Your task to perform on an android device: turn on wifi Image 0: 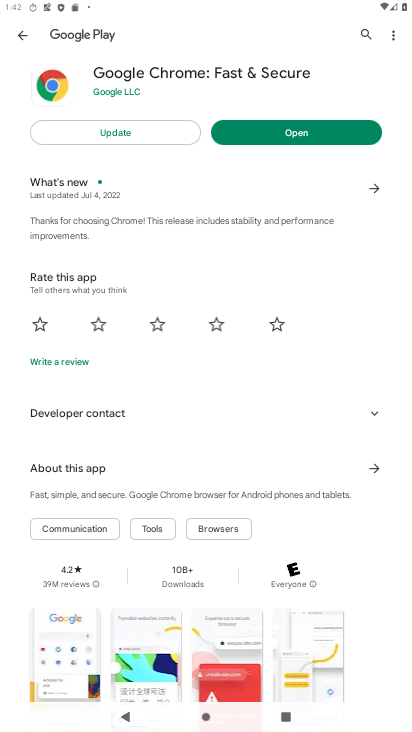
Step 0: press home button
Your task to perform on an android device: turn on wifi Image 1: 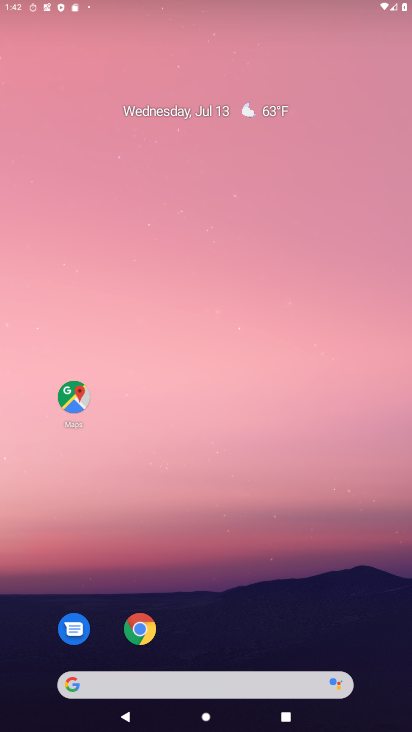
Step 1: drag from (233, 532) to (237, 224)
Your task to perform on an android device: turn on wifi Image 2: 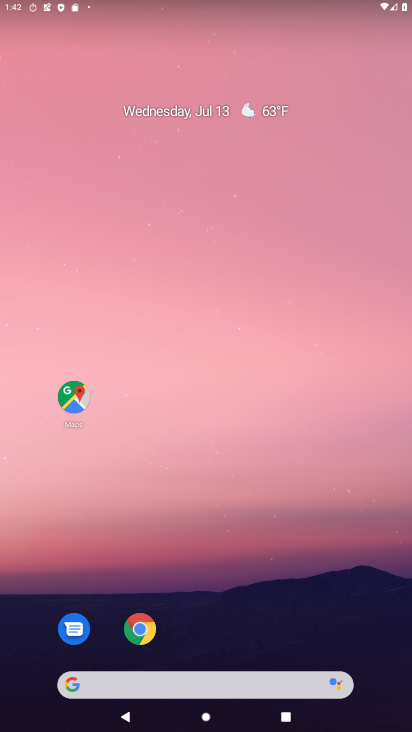
Step 2: drag from (181, 609) to (179, 198)
Your task to perform on an android device: turn on wifi Image 3: 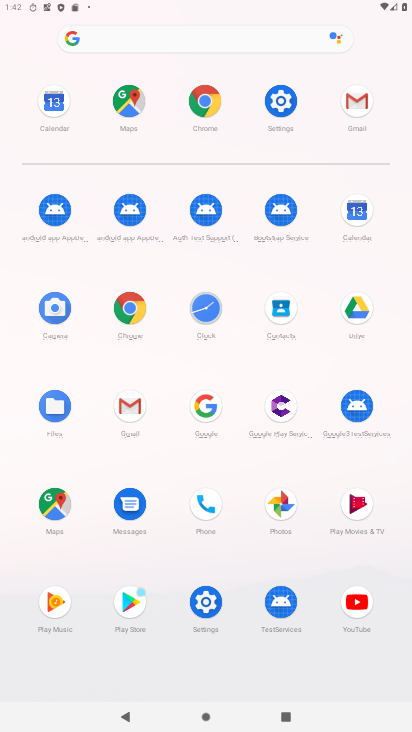
Step 3: click (205, 607)
Your task to perform on an android device: turn on wifi Image 4: 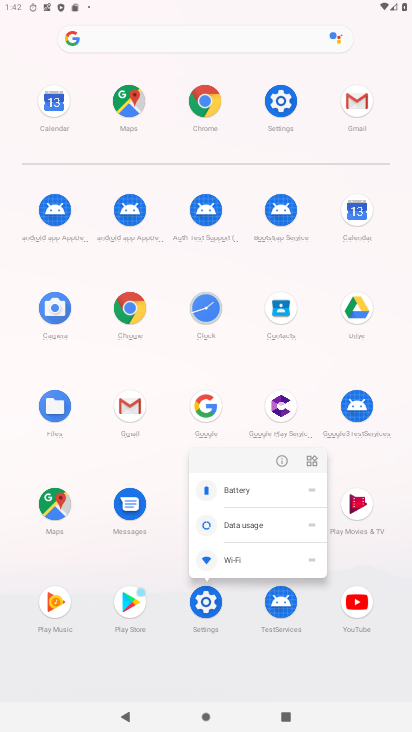
Step 4: click (278, 462)
Your task to perform on an android device: turn on wifi Image 5: 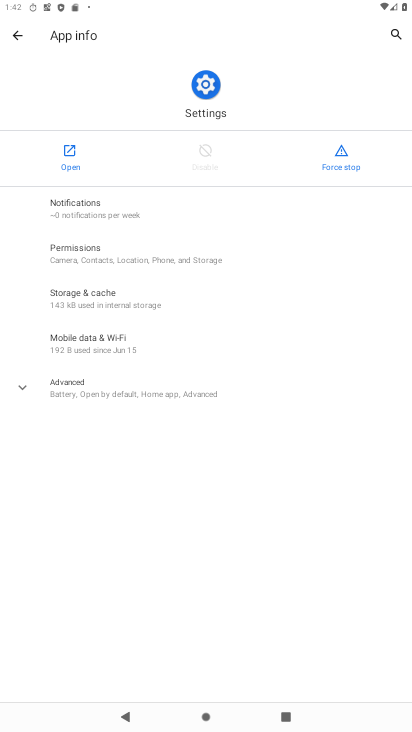
Step 5: click (62, 161)
Your task to perform on an android device: turn on wifi Image 6: 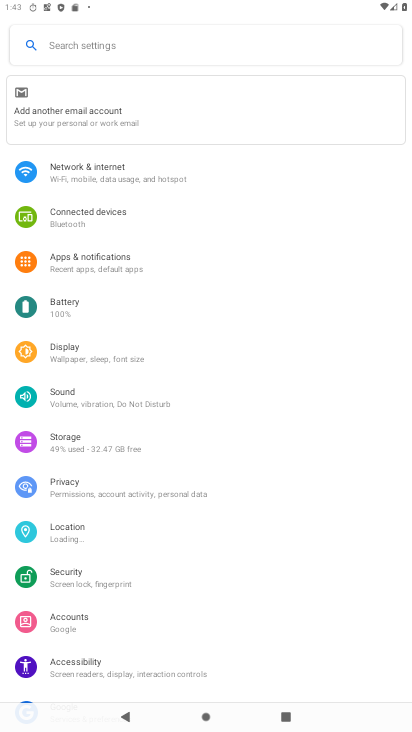
Step 6: click (98, 169)
Your task to perform on an android device: turn on wifi Image 7: 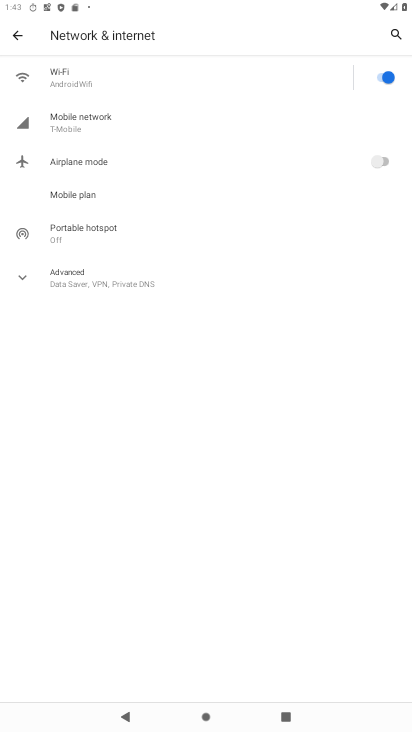
Step 7: click (195, 81)
Your task to perform on an android device: turn on wifi Image 8: 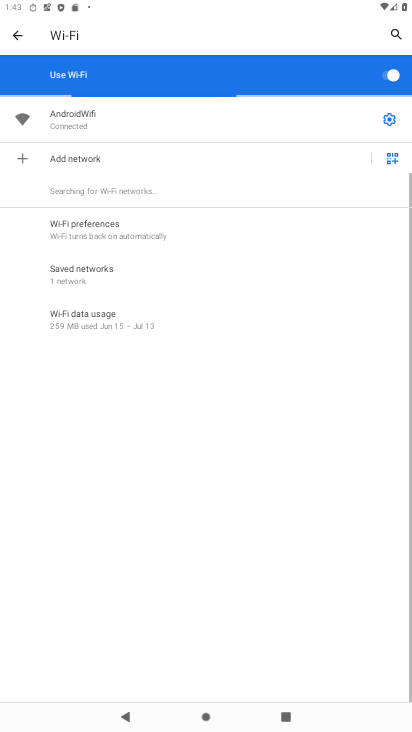
Step 8: task complete